Your task to perform on an android device: Show me popular videos on Youtube Image 0: 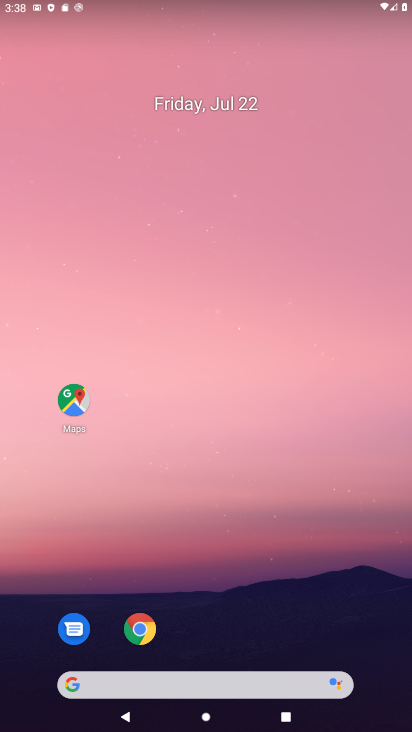
Step 0: drag from (272, 569) to (399, 241)
Your task to perform on an android device: Show me popular videos on Youtube Image 1: 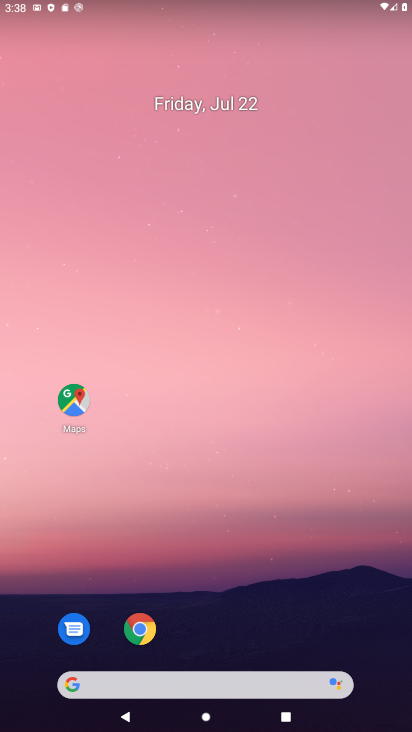
Step 1: drag from (288, 585) to (257, 92)
Your task to perform on an android device: Show me popular videos on Youtube Image 2: 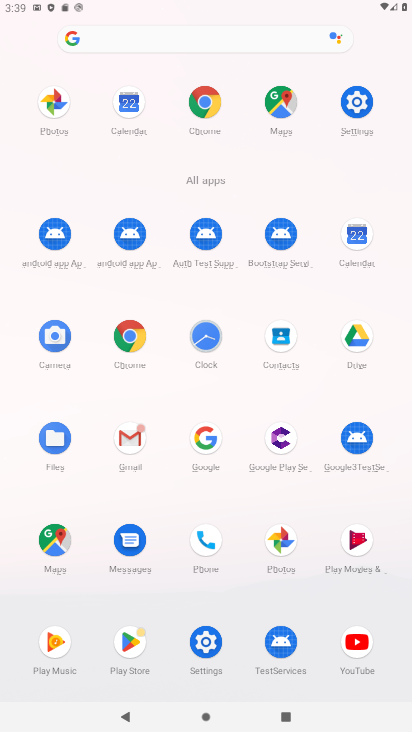
Step 2: click (357, 647)
Your task to perform on an android device: Show me popular videos on Youtube Image 3: 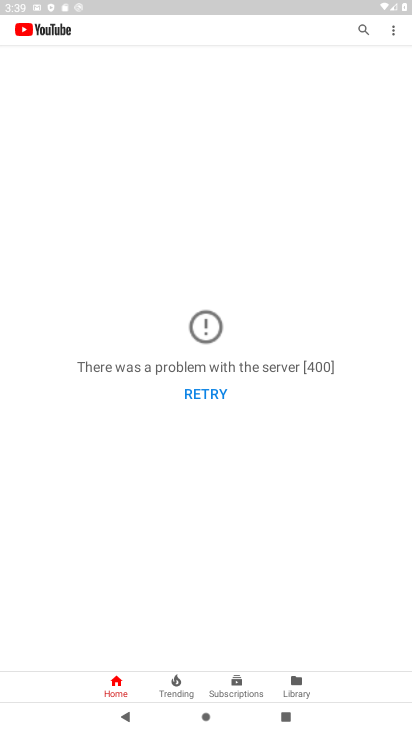
Step 3: task complete